Your task to perform on an android device: see tabs open on other devices in the chrome app Image 0: 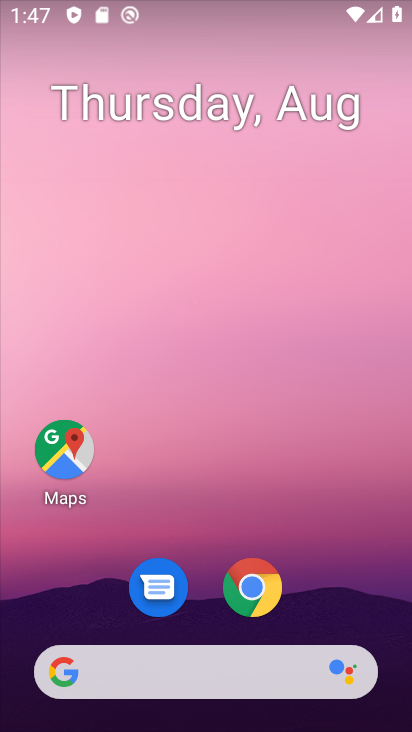
Step 0: click (250, 586)
Your task to perform on an android device: see tabs open on other devices in the chrome app Image 1: 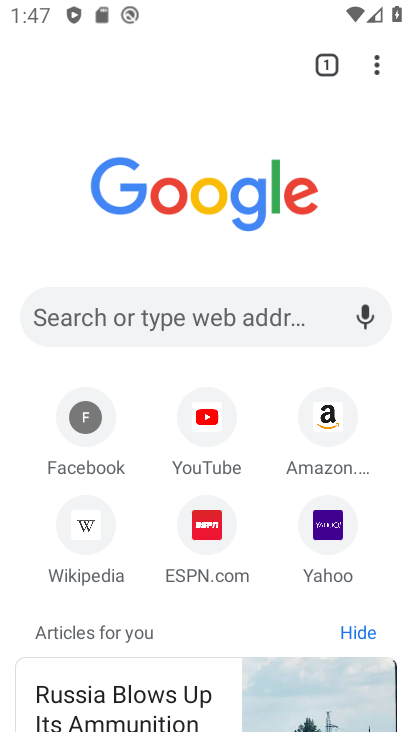
Step 1: click (376, 59)
Your task to perform on an android device: see tabs open on other devices in the chrome app Image 2: 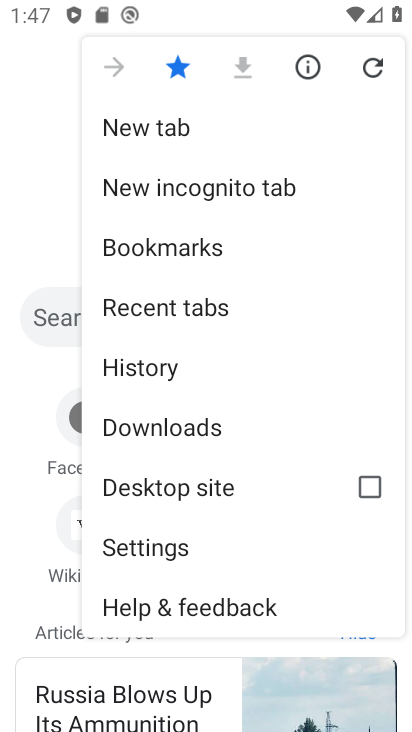
Step 2: click (173, 309)
Your task to perform on an android device: see tabs open on other devices in the chrome app Image 3: 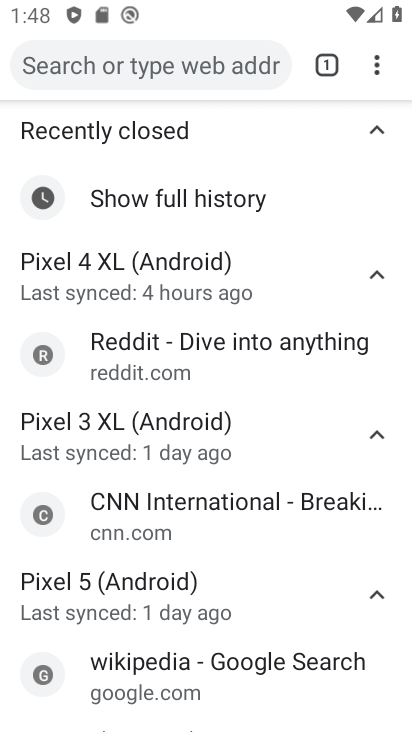
Step 3: task complete